Your task to perform on an android device: check google app version Image 0: 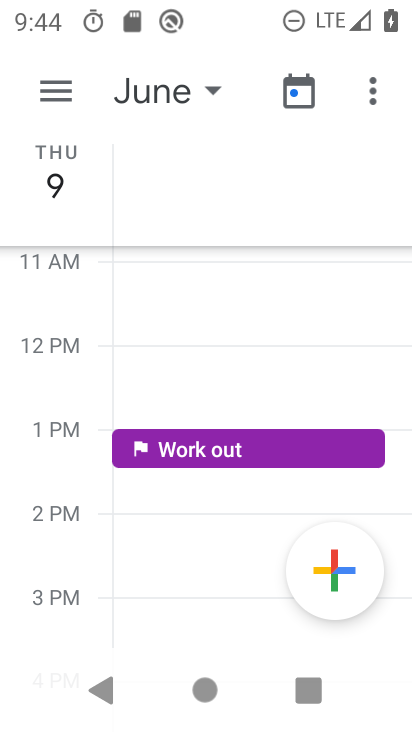
Step 0: press home button
Your task to perform on an android device: check google app version Image 1: 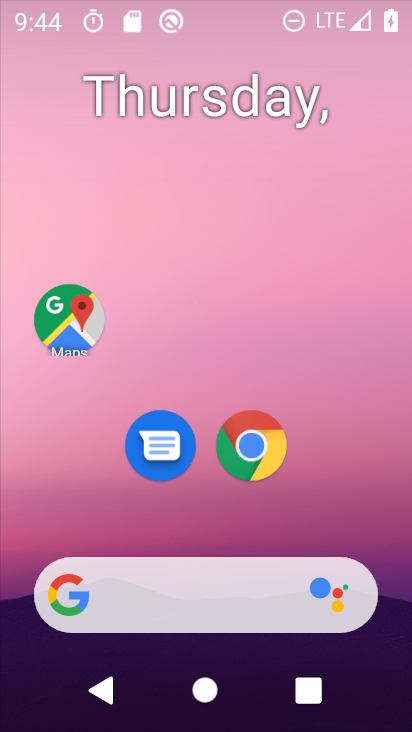
Step 1: drag from (138, 565) to (200, 152)
Your task to perform on an android device: check google app version Image 2: 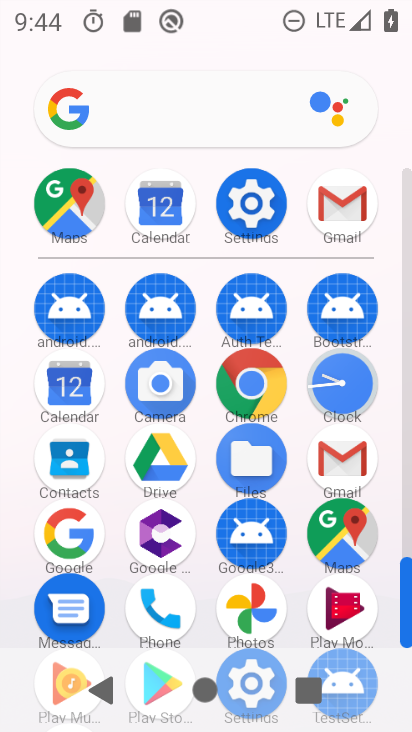
Step 2: click (65, 523)
Your task to perform on an android device: check google app version Image 3: 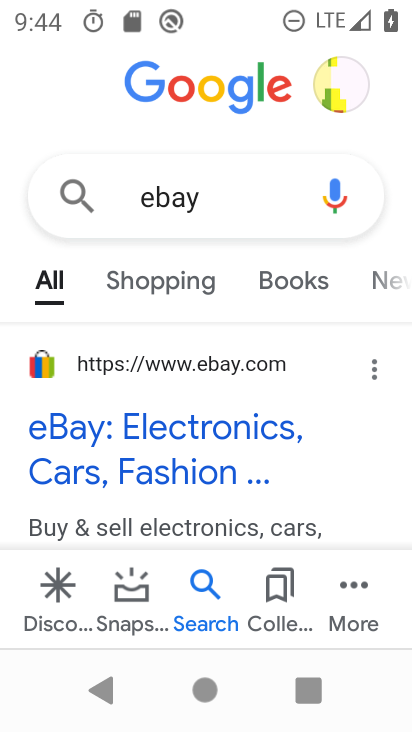
Step 3: click (345, 584)
Your task to perform on an android device: check google app version Image 4: 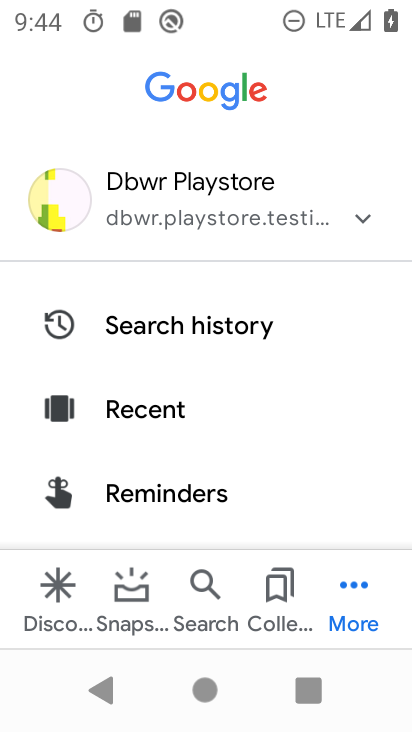
Step 4: drag from (143, 517) to (192, 173)
Your task to perform on an android device: check google app version Image 5: 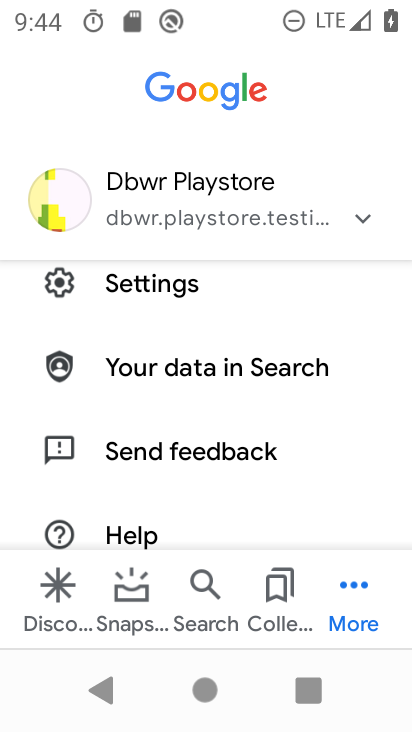
Step 5: click (183, 304)
Your task to perform on an android device: check google app version Image 6: 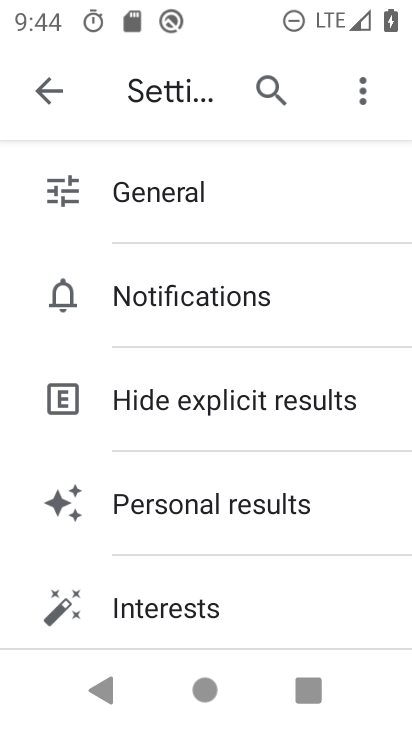
Step 6: drag from (208, 571) to (286, 127)
Your task to perform on an android device: check google app version Image 7: 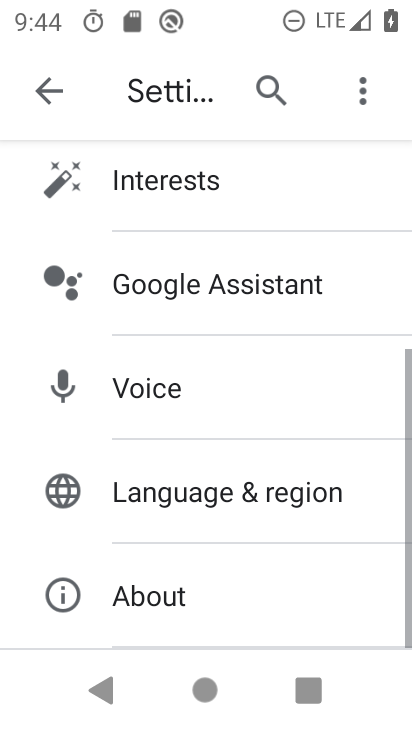
Step 7: click (175, 597)
Your task to perform on an android device: check google app version Image 8: 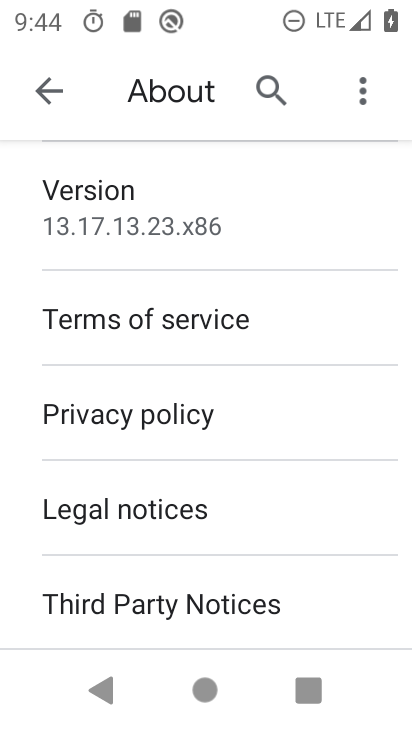
Step 8: click (94, 229)
Your task to perform on an android device: check google app version Image 9: 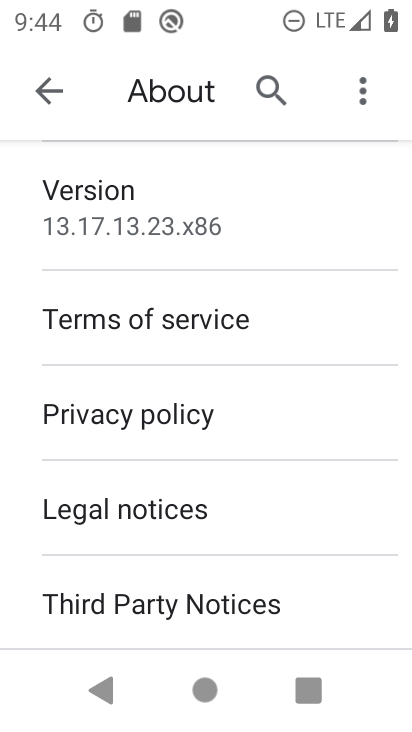
Step 9: task complete